Your task to perform on an android device: empty trash in google photos Image 0: 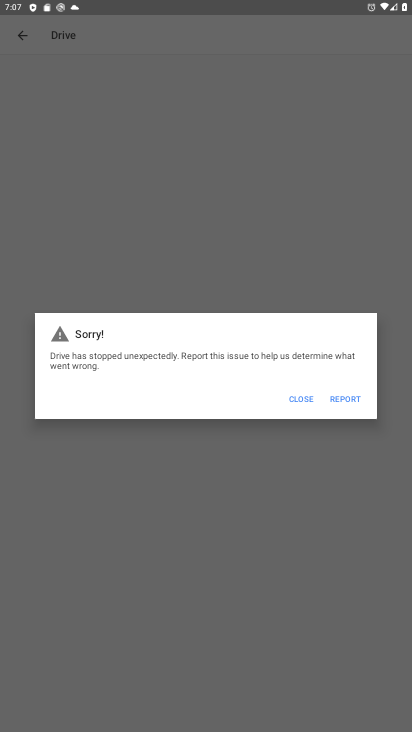
Step 0: press home button
Your task to perform on an android device: empty trash in google photos Image 1: 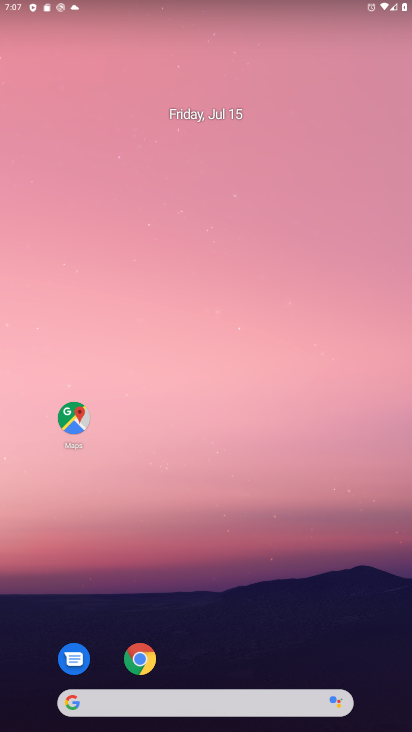
Step 1: drag from (356, 658) to (268, 230)
Your task to perform on an android device: empty trash in google photos Image 2: 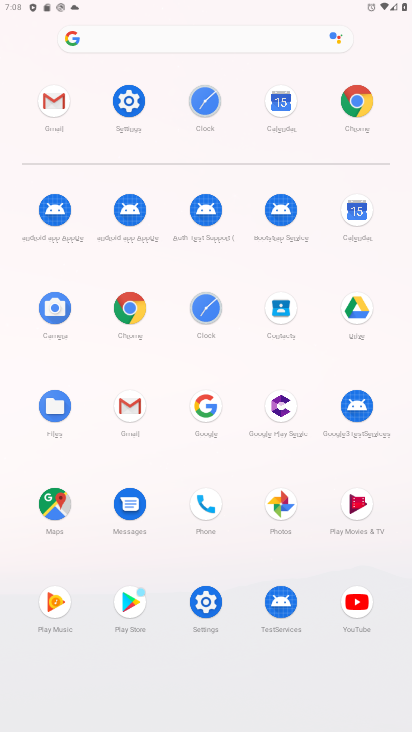
Step 2: click (285, 504)
Your task to perform on an android device: empty trash in google photos Image 3: 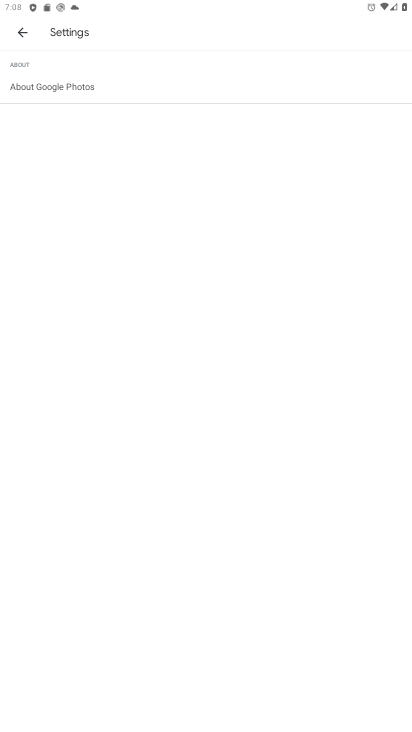
Step 3: press back button
Your task to perform on an android device: empty trash in google photos Image 4: 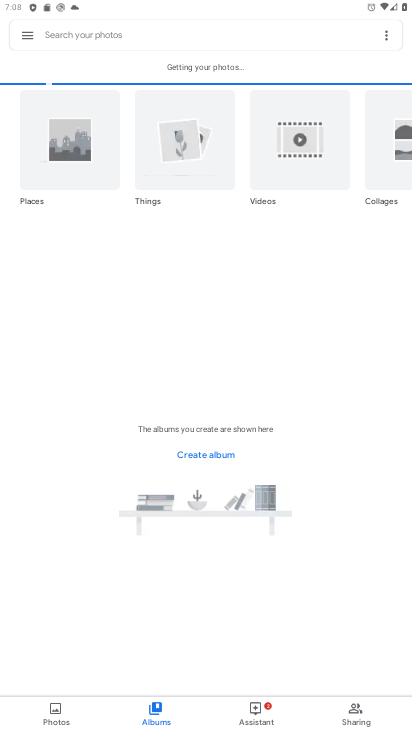
Step 4: click (25, 36)
Your task to perform on an android device: empty trash in google photos Image 5: 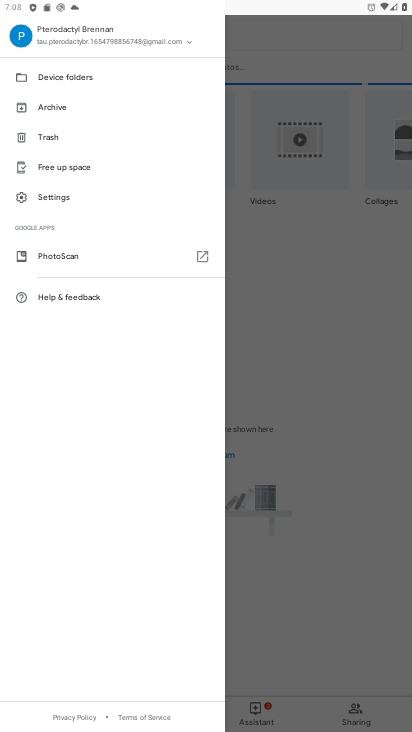
Step 5: click (56, 134)
Your task to perform on an android device: empty trash in google photos Image 6: 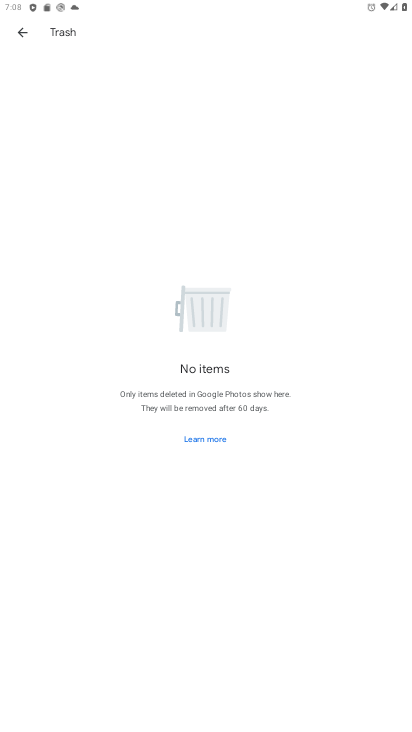
Step 6: task complete